Your task to perform on an android device: open sync settings in chrome Image 0: 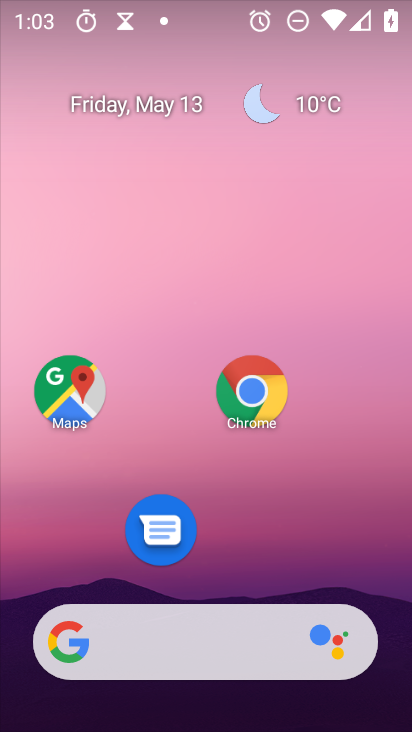
Step 0: press home button
Your task to perform on an android device: open sync settings in chrome Image 1: 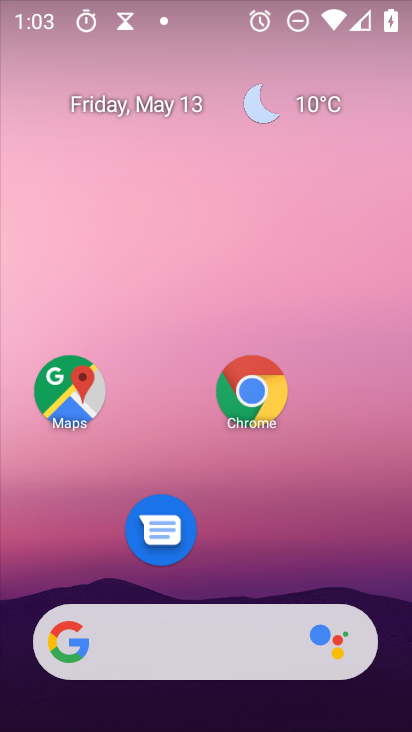
Step 1: click (256, 395)
Your task to perform on an android device: open sync settings in chrome Image 2: 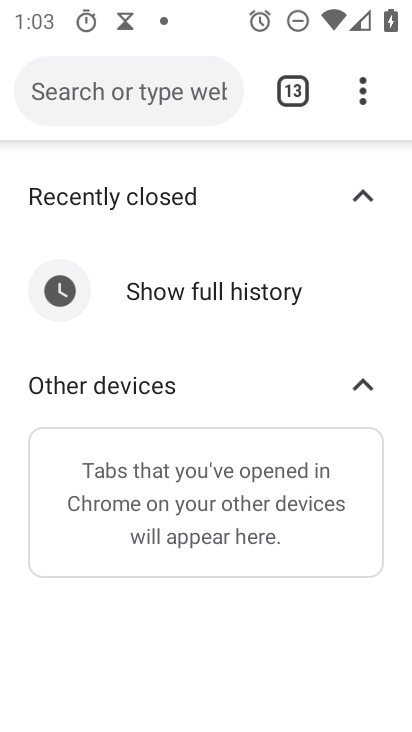
Step 2: drag from (363, 98) to (218, 565)
Your task to perform on an android device: open sync settings in chrome Image 3: 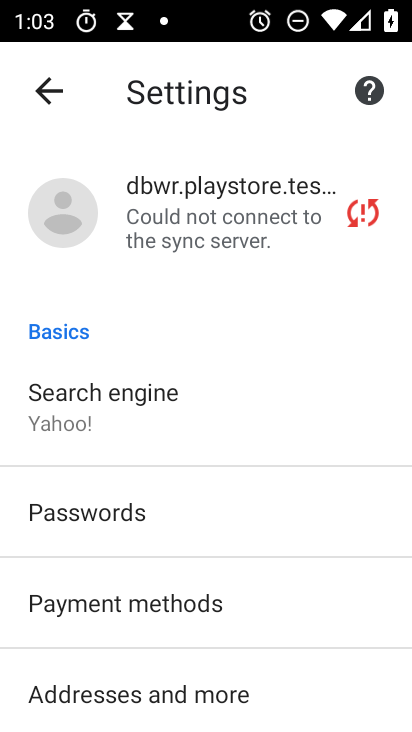
Step 3: click (204, 243)
Your task to perform on an android device: open sync settings in chrome Image 4: 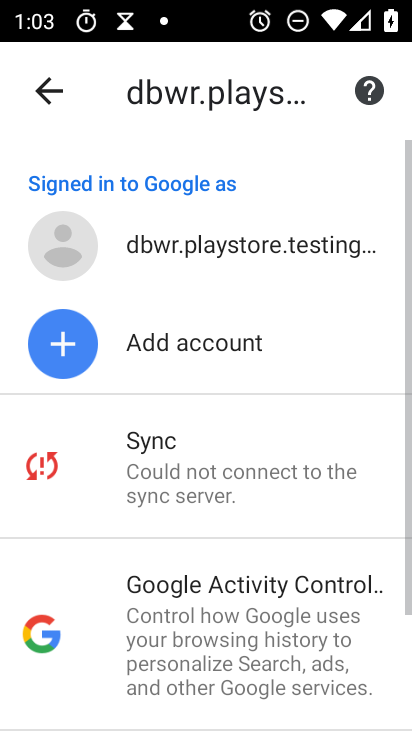
Step 4: click (221, 468)
Your task to perform on an android device: open sync settings in chrome Image 5: 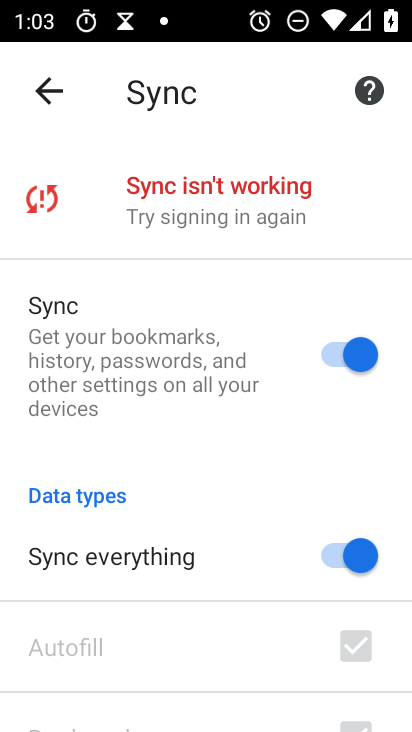
Step 5: click (273, 223)
Your task to perform on an android device: open sync settings in chrome Image 6: 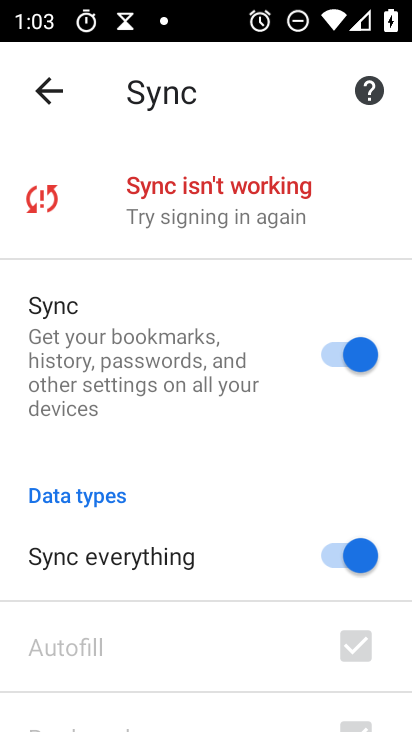
Step 6: task complete